Your task to perform on an android device: Open Amazon Image 0: 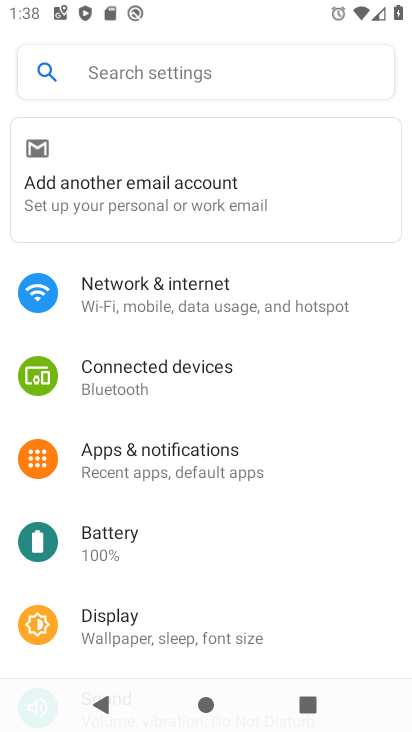
Step 0: press home button
Your task to perform on an android device: Open Amazon Image 1: 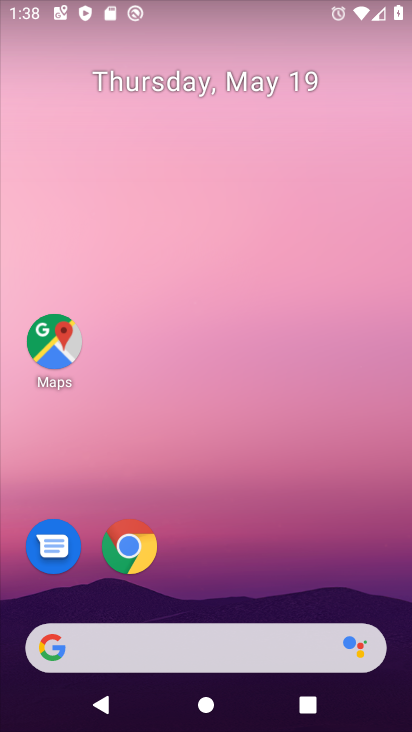
Step 1: click (132, 539)
Your task to perform on an android device: Open Amazon Image 2: 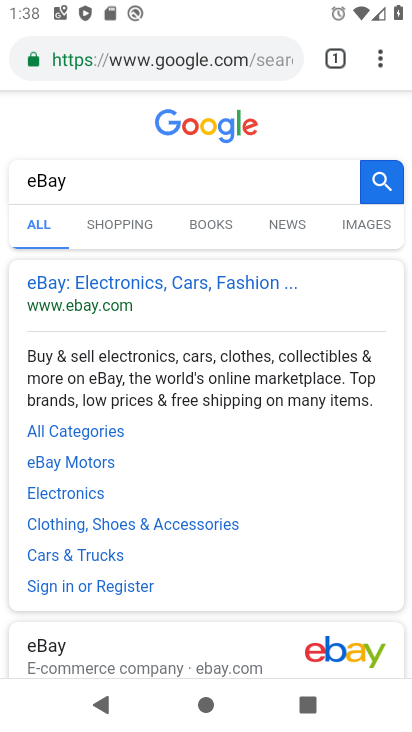
Step 2: click (198, 58)
Your task to perform on an android device: Open Amazon Image 3: 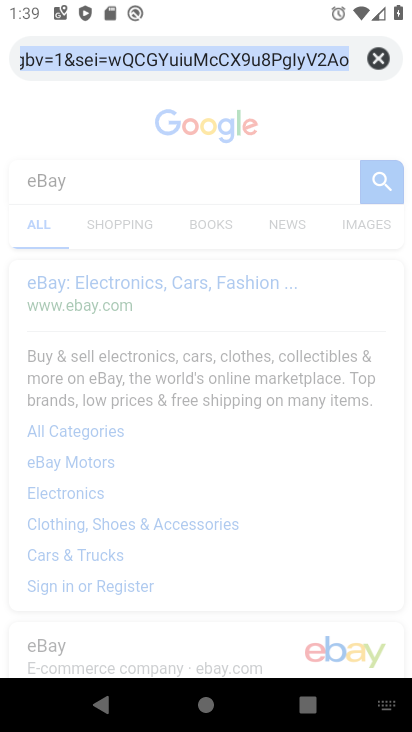
Step 3: type "Amazon"
Your task to perform on an android device: Open Amazon Image 4: 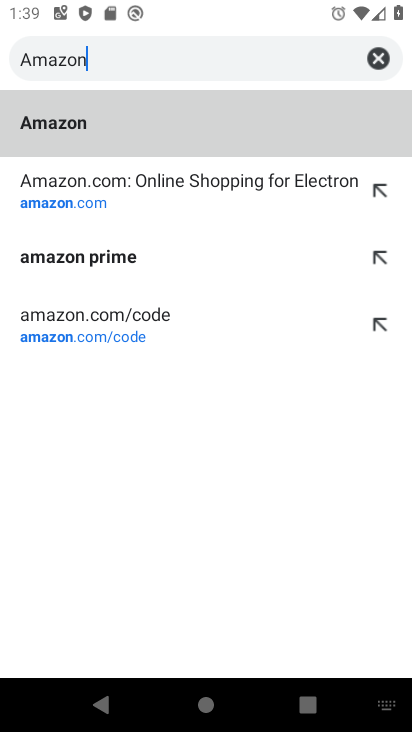
Step 4: click (165, 107)
Your task to perform on an android device: Open Amazon Image 5: 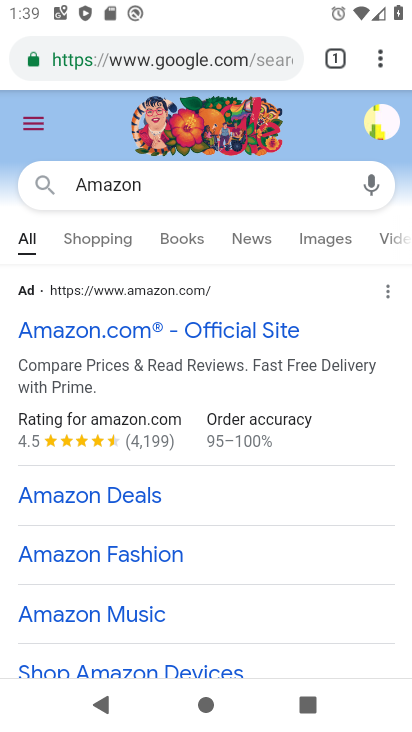
Step 5: task complete